Your task to perform on an android device: change notifications settings Image 0: 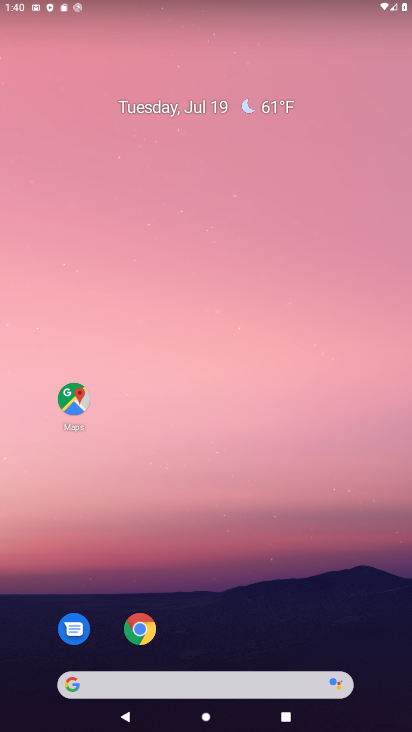
Step 0: drag from (387, 640) to (341, 71)
Your task to perform on an android device: change notifications settings Image 1: 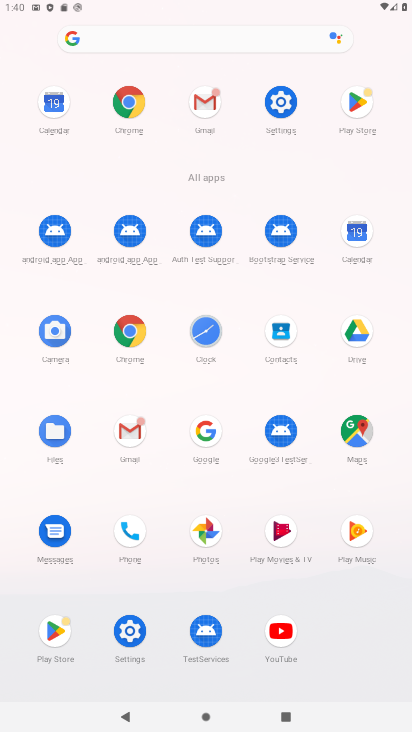
Step 1: click (128, 630)
Your task to perform on an android device: change notifications settings Image 2: 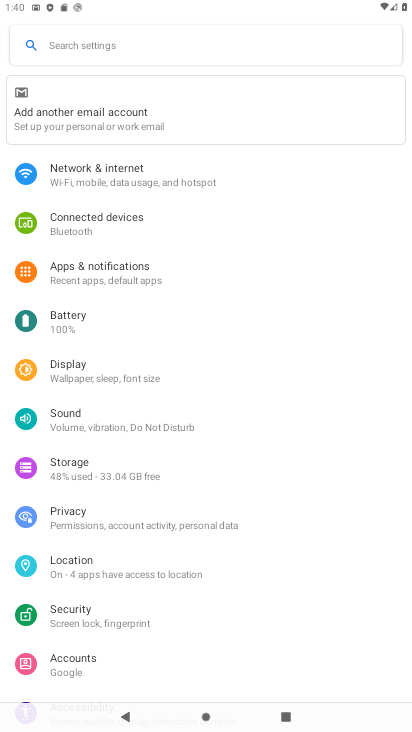
Step 2: click (123, 282)
Your task to perform on an android device: change notifications settings Image 3: 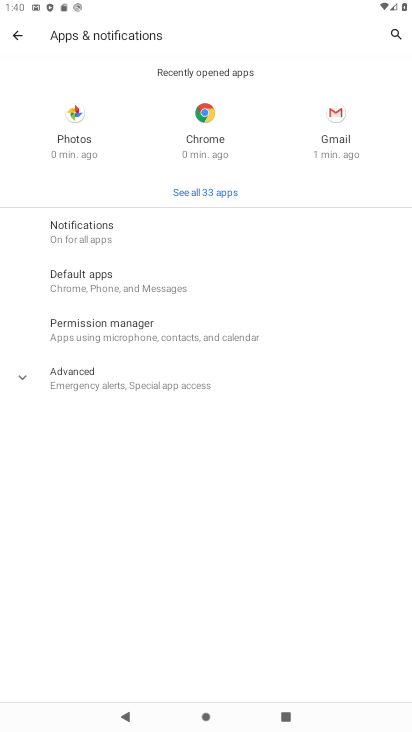
Step 3: click (103, 237)
Your task to perform on an android device: change notifications settings Image 4: 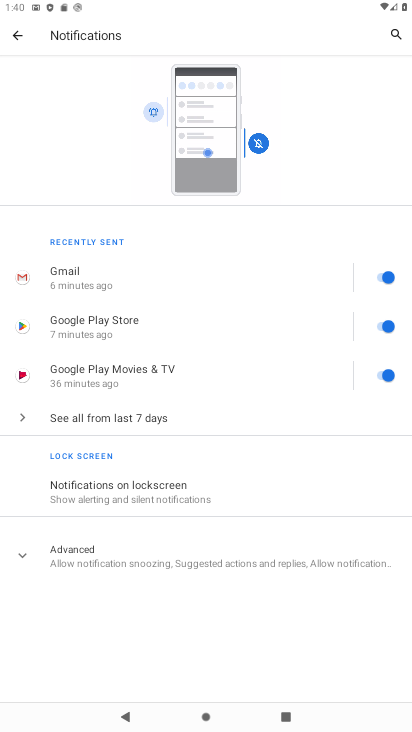
Step 4: drag from (192, 585) to (199, 303)
Your task to perform on an android device: change notifications settings Image 5: 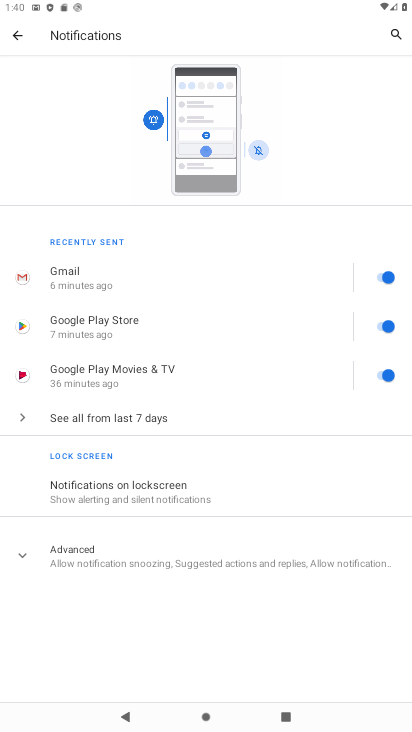
Step 5: click (23, 559)
Your task to perform on an android device: change notifications settings Image 6: 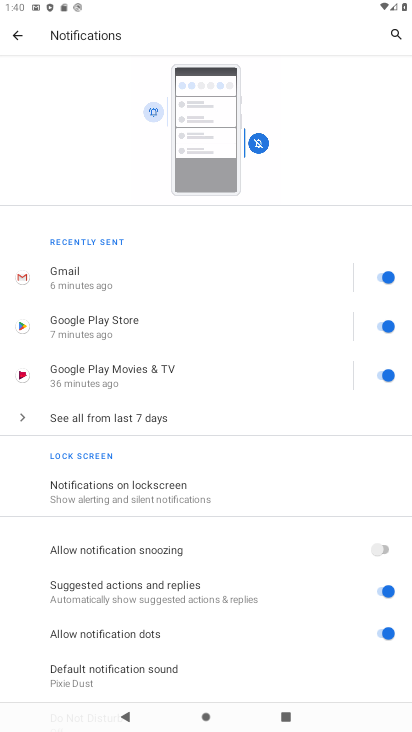
Step 6: click (383, 629)
Your task to perform on an android device: change notifications settings Image 7: 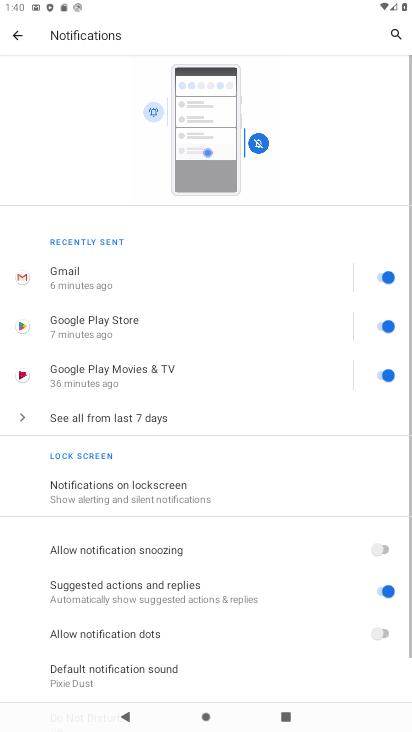
Step 7: click (384, 543)
Your task to perform on an android device: change notifications settings Image 8: 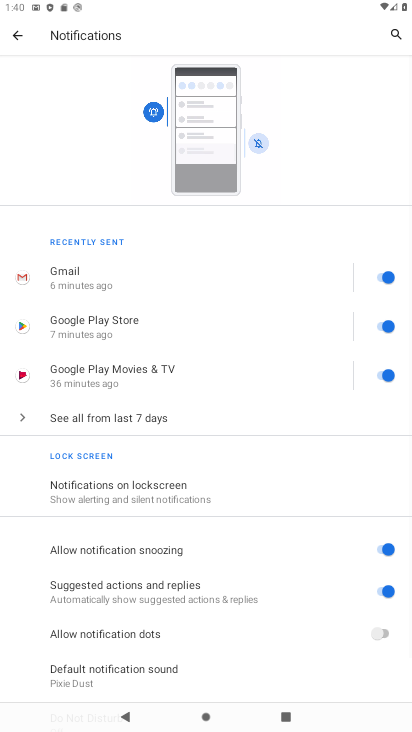
Step 8: task complete